Your task to perform on an android device: toggle priority inbox in the gmail app Image 0: 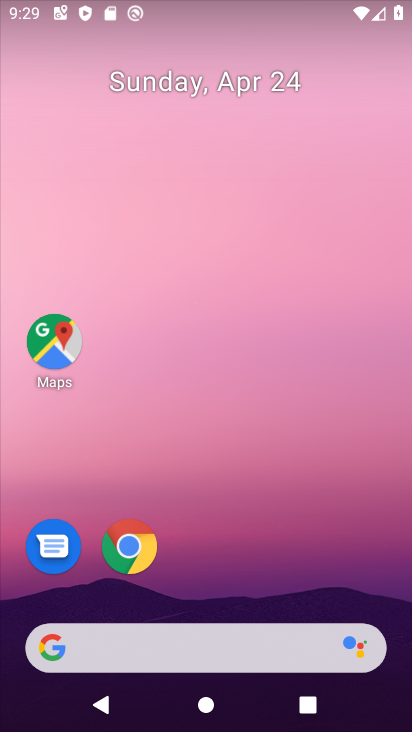
Step 0: drag from (258, 537) to (272, 134)
Your task to perform on an android device: toggle priority inbox in the gmail app Image 1: 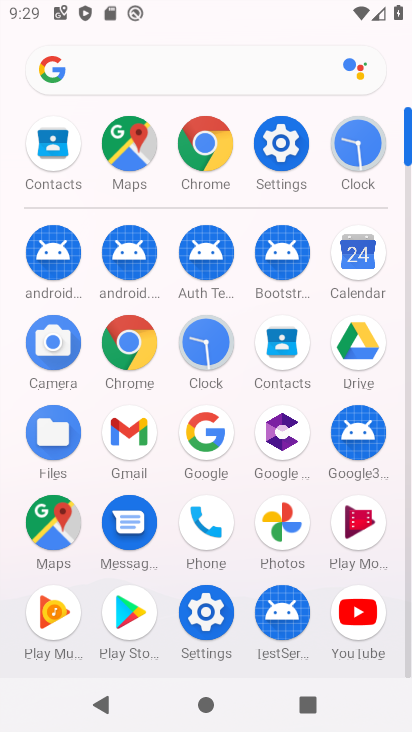
Step 1: click (141, 433)
Your task to perform on an android device: toggle priority inbox in the gmail app Image 2: 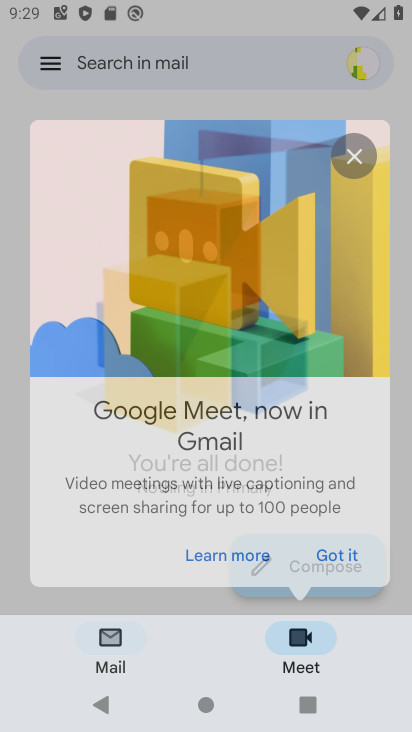
Step 2: click (46, 62)
Your task to perform on an android device: toggle priority inbox in the gmail app Image 3: 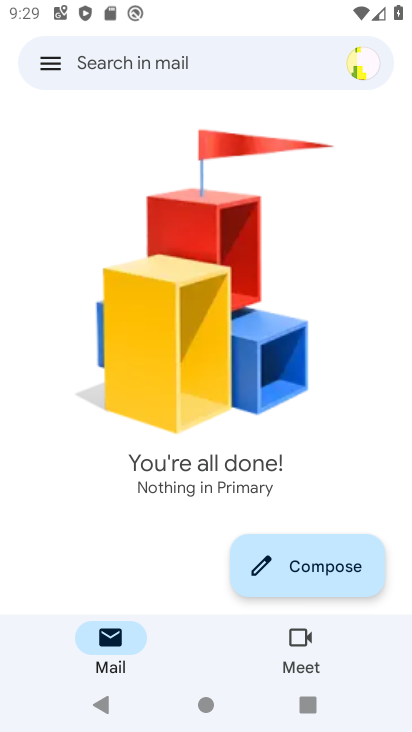
Step 3: click (44, 67)
Your task to perform on an android device: toggle priority inbox in the gmail app Image 4: 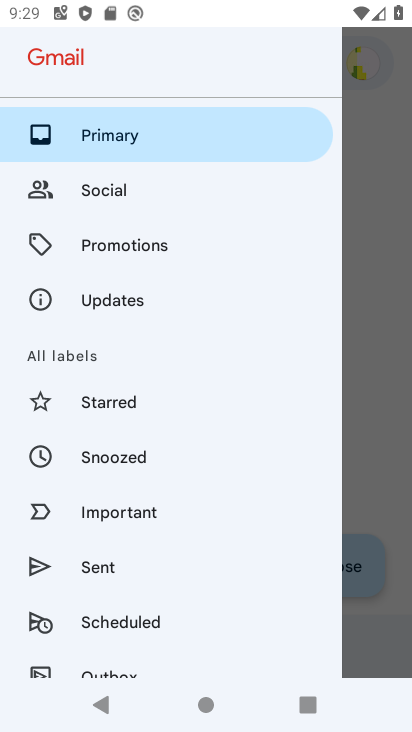
Step 4: drag from (109, 493) to (143, 358)
Your task to perform on an android device: toggle priority inbox in the gmail app Image 5: 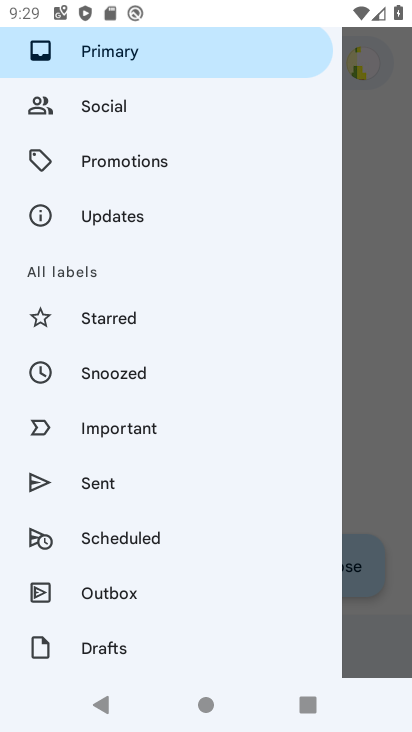
Step 5: drag from (106, 599) to (132, 252)
Your task to perform on an android device: toggle priority inbox in the gmail app Image 6: 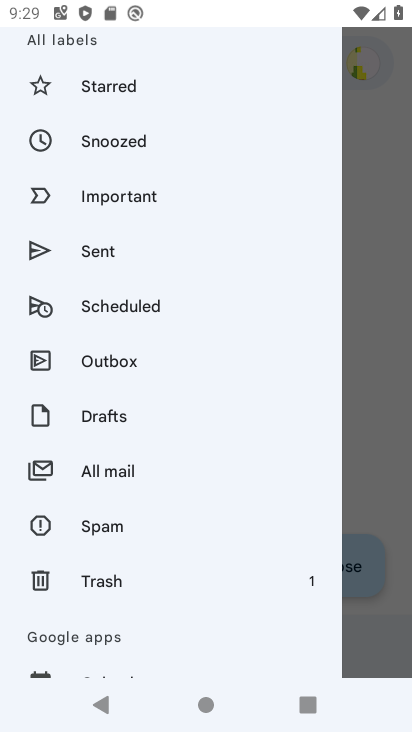
Step 6: drag from (121, 576) to (162, 377)
Your task to perform on an android device: toggle priority inbox in the gmail app Image 7: 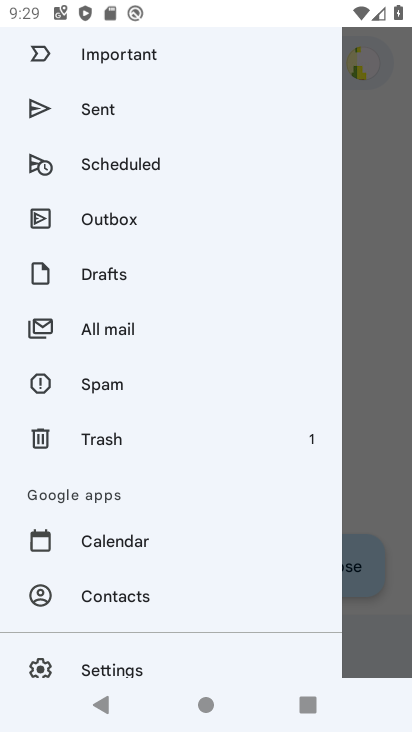
Step 7: drag from (163, 617) to (209, 145)
Your task to perform on an android device: toggle priority inbox in the gmail app Image 8: 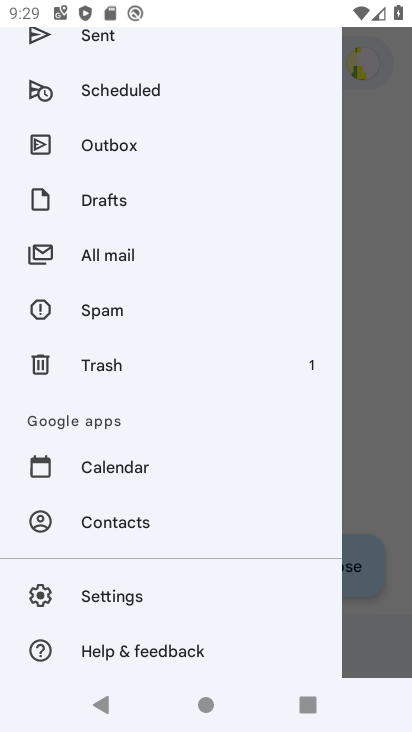
Step 8: click (181, 620)
Your task to perform on an android device: toggle priority inbox in the gmail app Image 9: 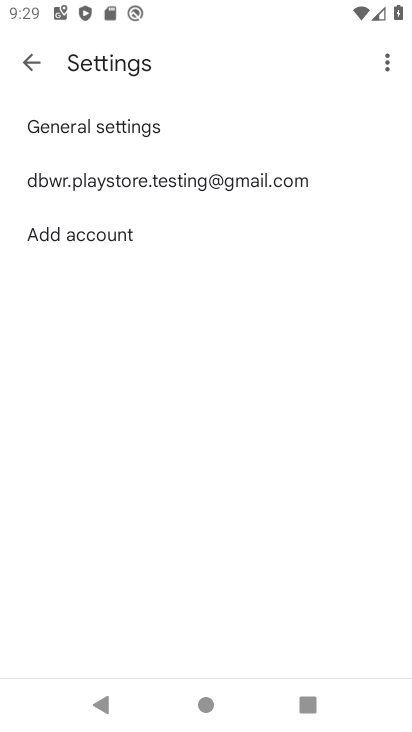
Step 9: click (198, 185)
Your task to perform on an android device: toggle priority inbox in the gmail app Image 10: 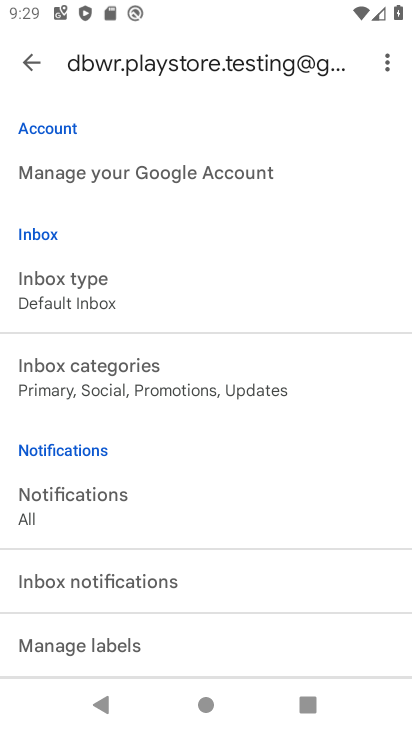
Step 10: drag from (139, 487) to (206, 256)
Your task to perform on an android device: toggle priority inbox in the gmail app Image 11: 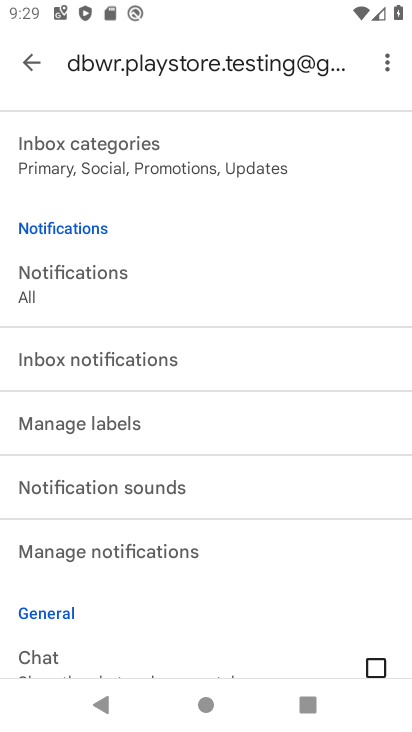
Step 11: drag from (185, 556) to (196, 720)
Your task to perform on an android device: toggle priority inbox in the gmail app Image 12: 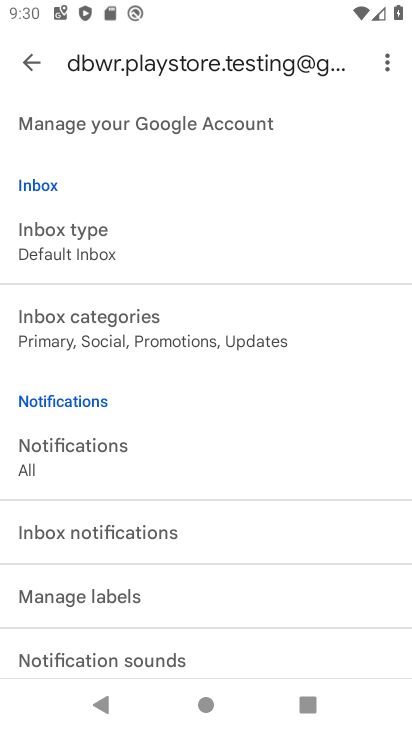
Step 12: click (122, 234)
Your task to perform on an android device: toggle priority inbox in the gmail app Image 13: 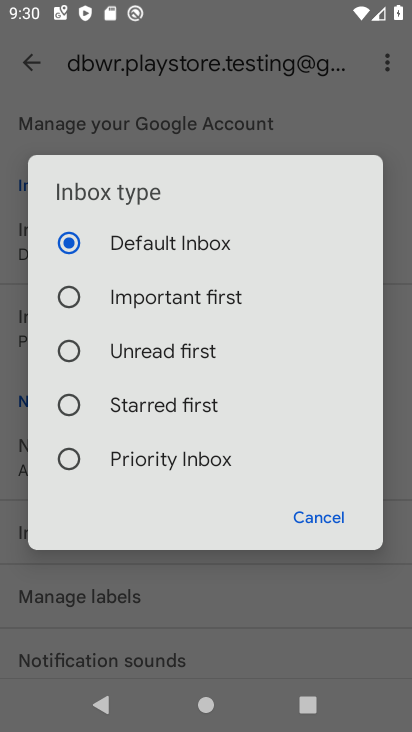
Step 13: click (173, 451)
Your task to perform on an android device: toggle priority inbox in the gmail app Image 14: 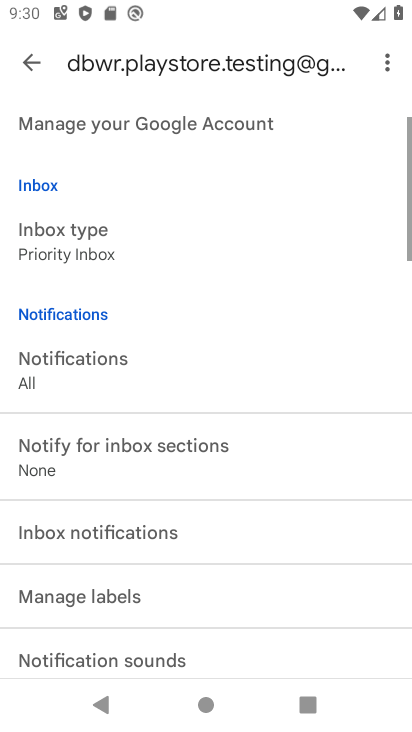
Step 14: task complete